Your task to perform on an android device: check data usage Image 0: 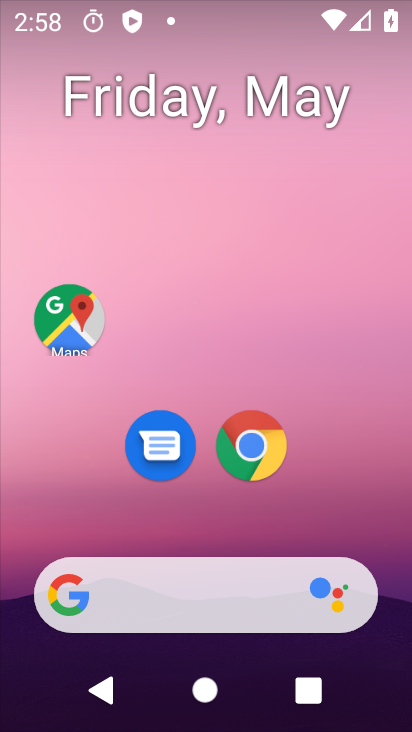
Step 0: drag from (97, 676) to (87, 115)
Your task to perform on an android device: check data usage Image 1: 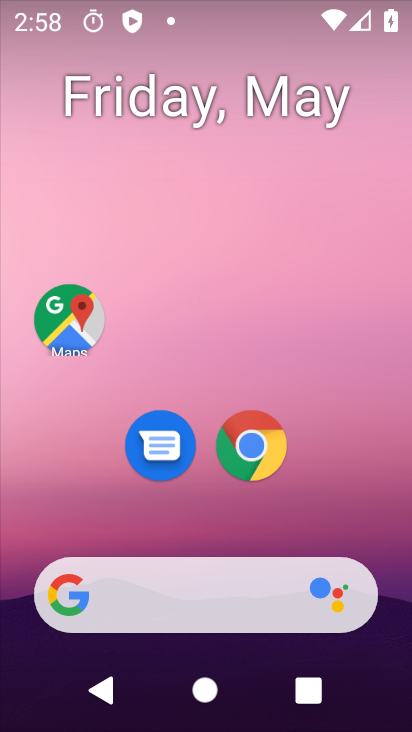
Step 1: drag from (209, 624) to (145, 84)
Your task to perform on an android device: check data usage Image 2: 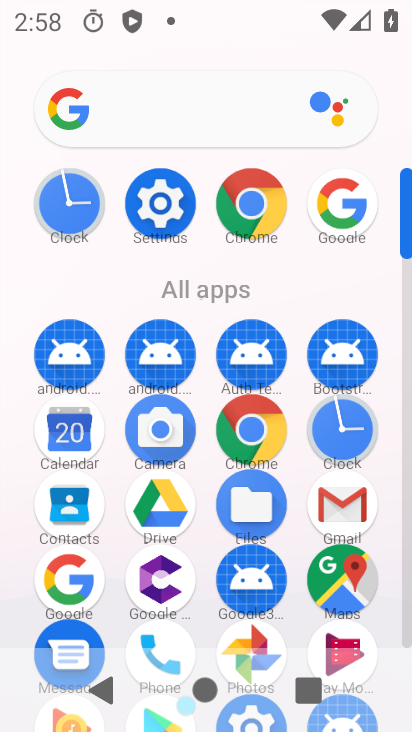
Step 2: click (168, 232)
Your task to perform on an android device: check data usage Image 3: 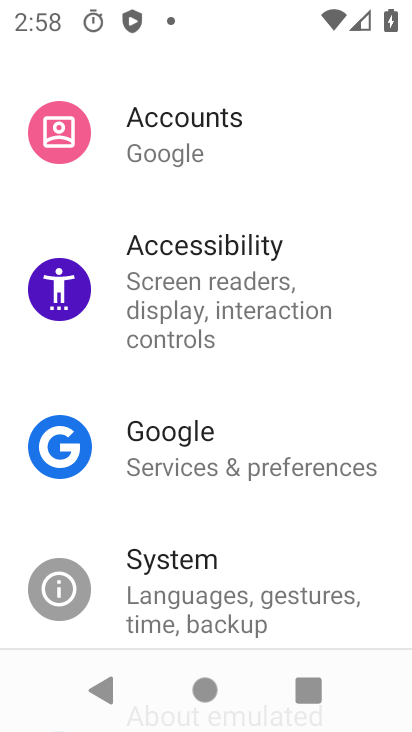
Step 3: drag from (193, 227) to (183, 692)
Your task to perform on an android device: check data usage Image 4: 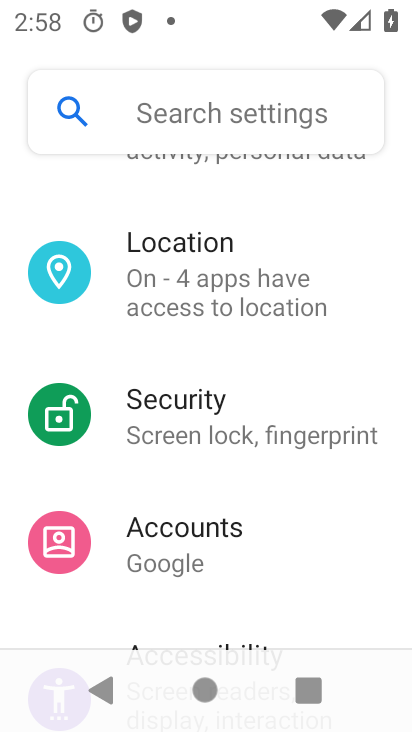
Step 4: drag from (175, 217) to (186, 543)
Your task to perform on an android device: check data usage Image 5: 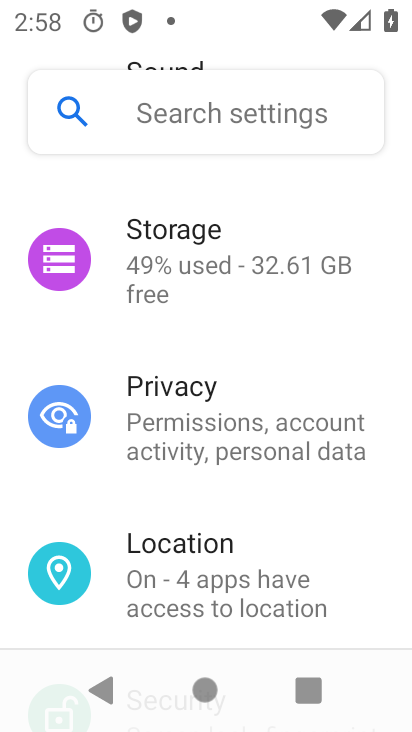
Step 5: drag from (179, 228) to (207, 718)
Your task to perform on an android device: check data usage Image 6: 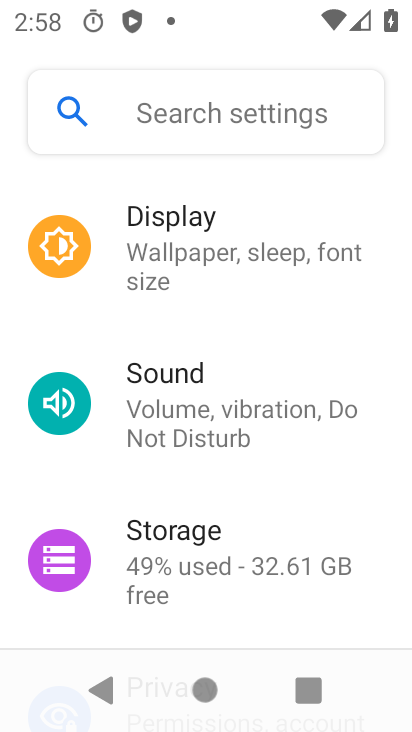
Step 6: drag from (196, 257) to (198, 629)
Your task to perform on an android device: check data usage Image 7: 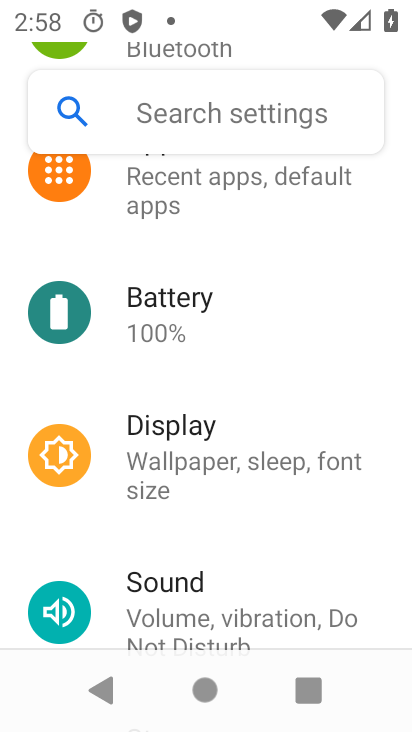
Step 7: drag from (128, 275) to (366, 666)
Your task to perform on an android device: check data usage Image 8: 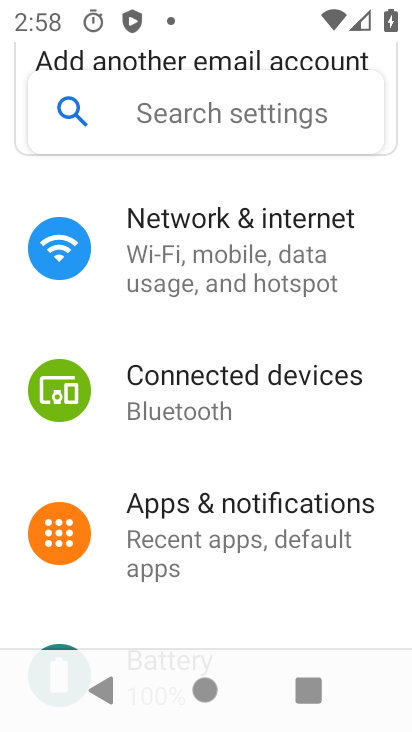
Step 8: drag from (205, 302) to (348, 613)
Your task to perform on an android device: check data usage Image 9: 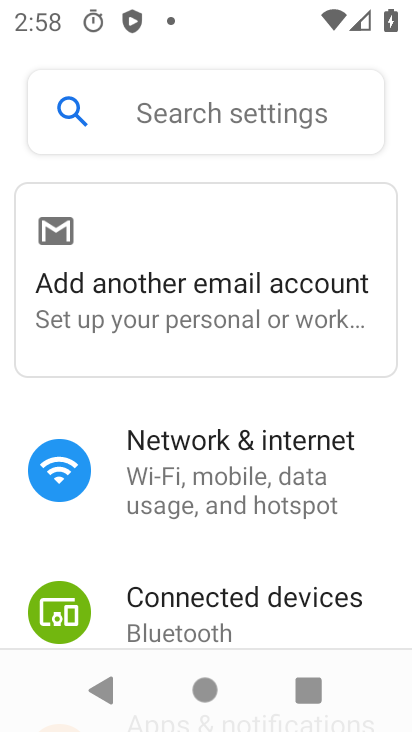
Step 9: click (199, 456)
Your task to perform on an android device: check data usage Image 10: 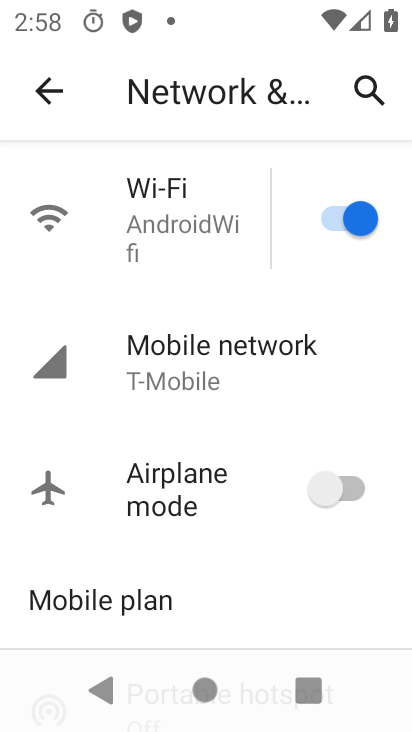
Step 10: click (179, 384)
Your task to perform on an android device: check data usage Image 11: 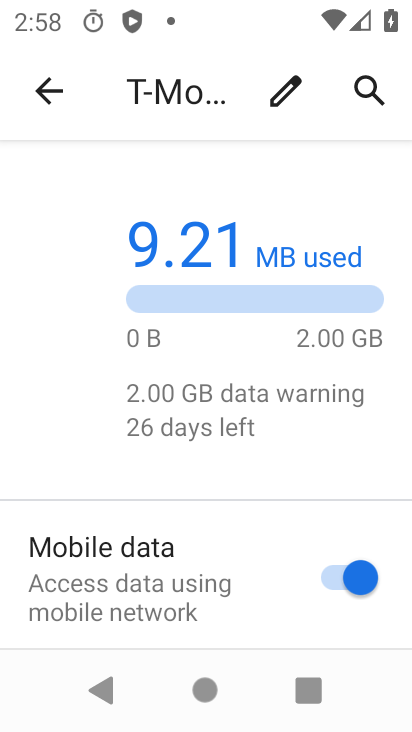
Step 11: drag from (193, 480) to (0, 241)
Your task to perform on an android device: check data usage Image 12: 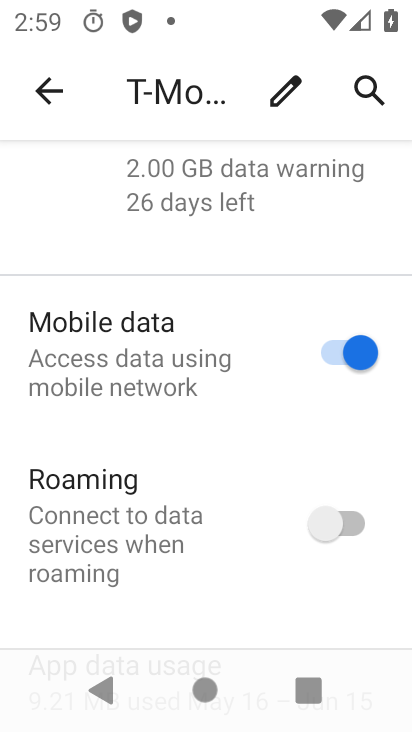
Step 12: drag from (160, 551) to (35, 141)
Your task to perform on an android device: check data usage Image 13: 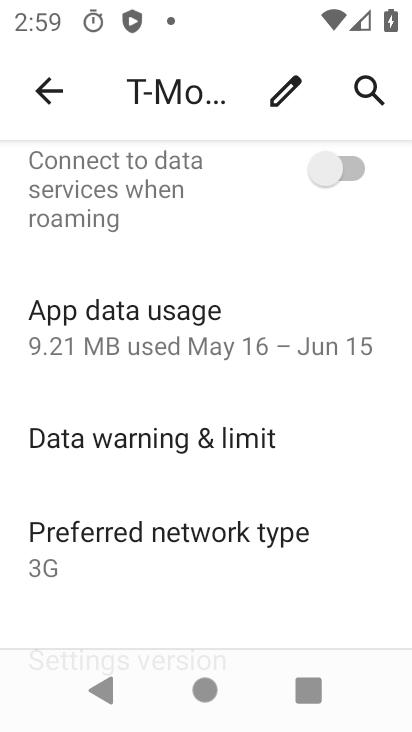
Step 13: click (148, 340)
Your task to perform on an android device: check data usage Image 14: 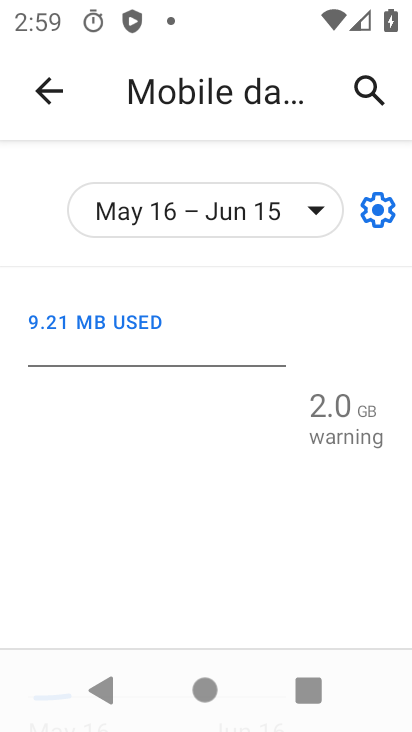
Step 14: task complete